Your task to perform on an android device: toggle notification dots Image 0: 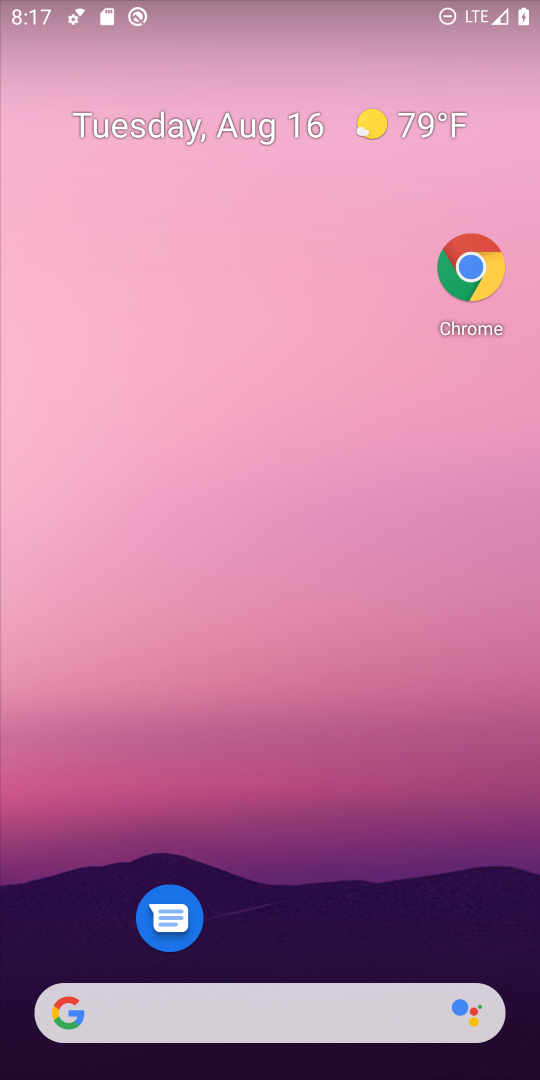
Step 0: drag from (351, 948) to (408, 9)
Your task to perform on an android device: toggle notification dots Image 1: 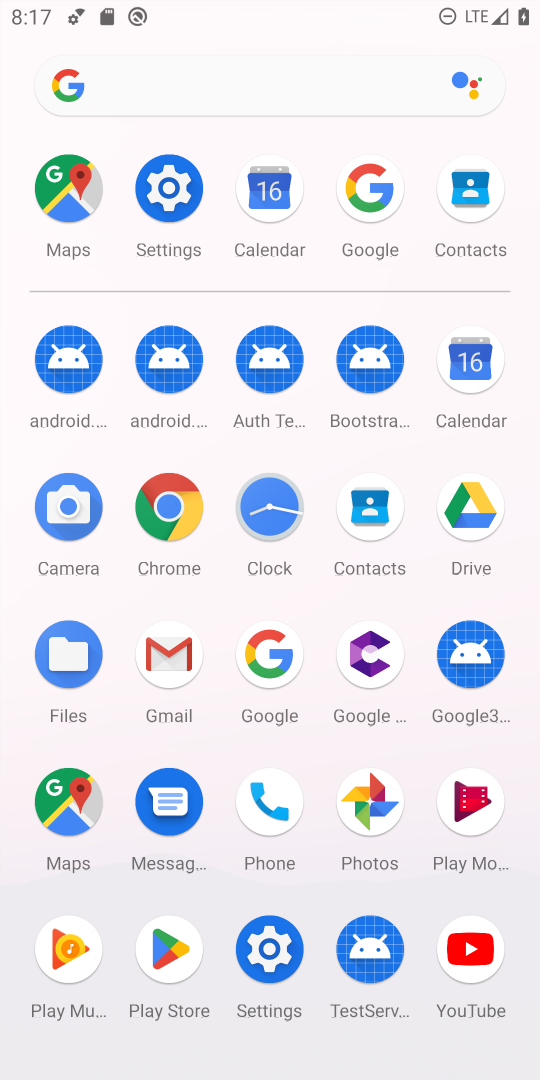
Step 1: click (157, 225)
Your task to perform on an android device: toggle notification dots Image 2: 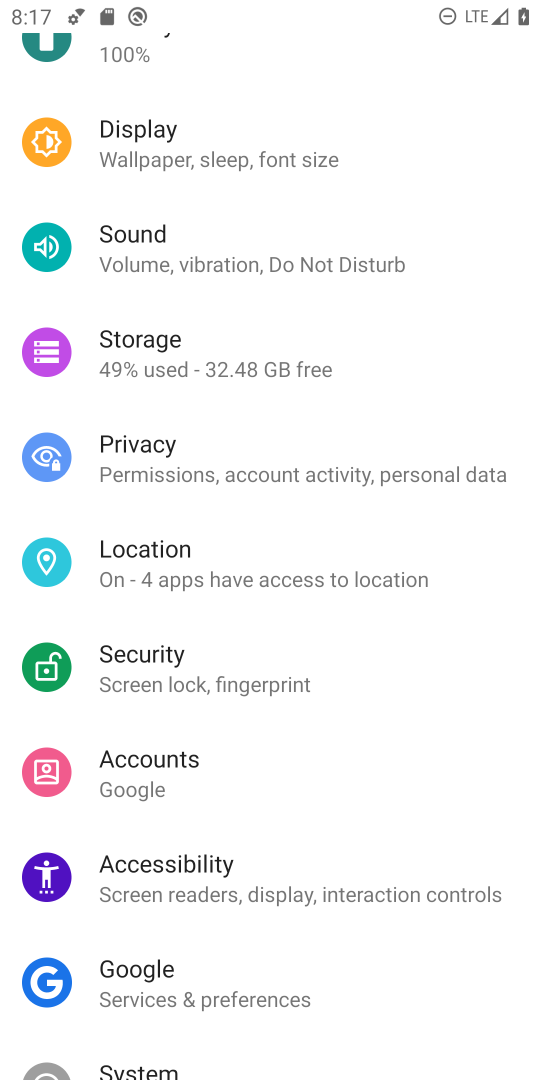
Step 2: drag from (225, 145) to (279, 535)
Your task to perform on an android device: toggle notification dots Image 3: 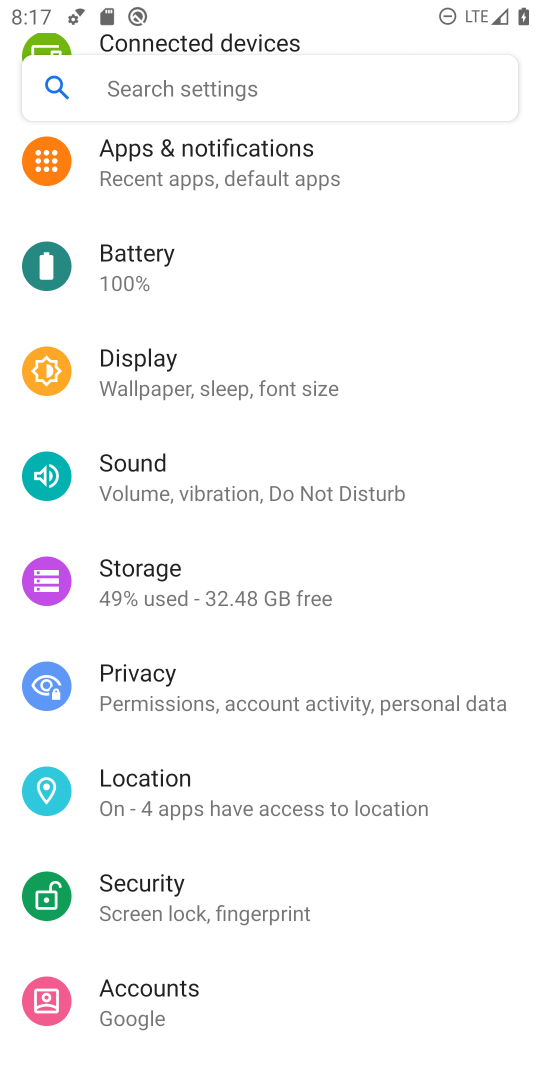
Step 3: click (227, 169)
Your task to perform on an android device: toggle notification dots Image 4: 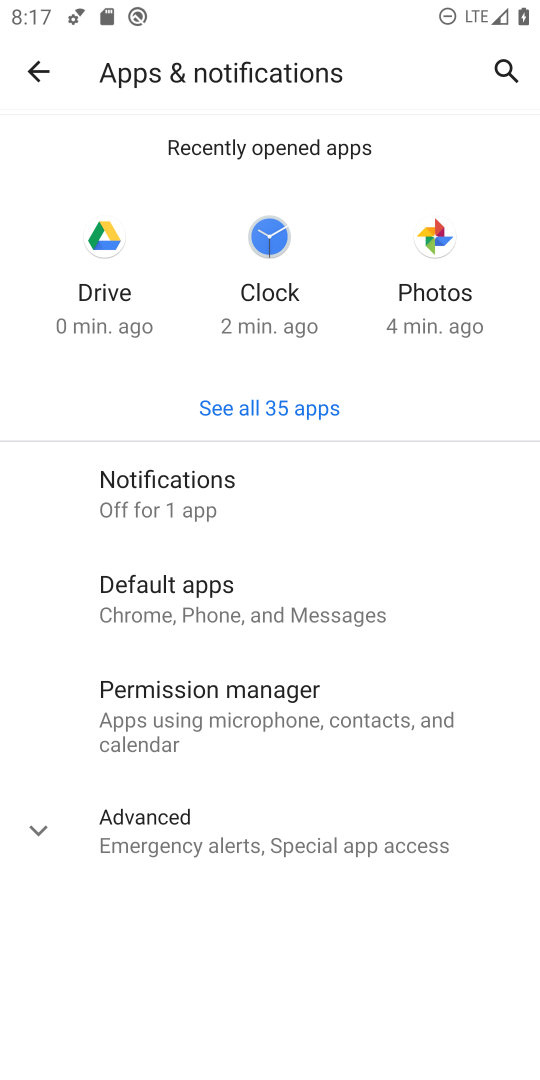
Step 4: click (204, 501)
Your task to perform on an android device: toggle notification dots Image 5: 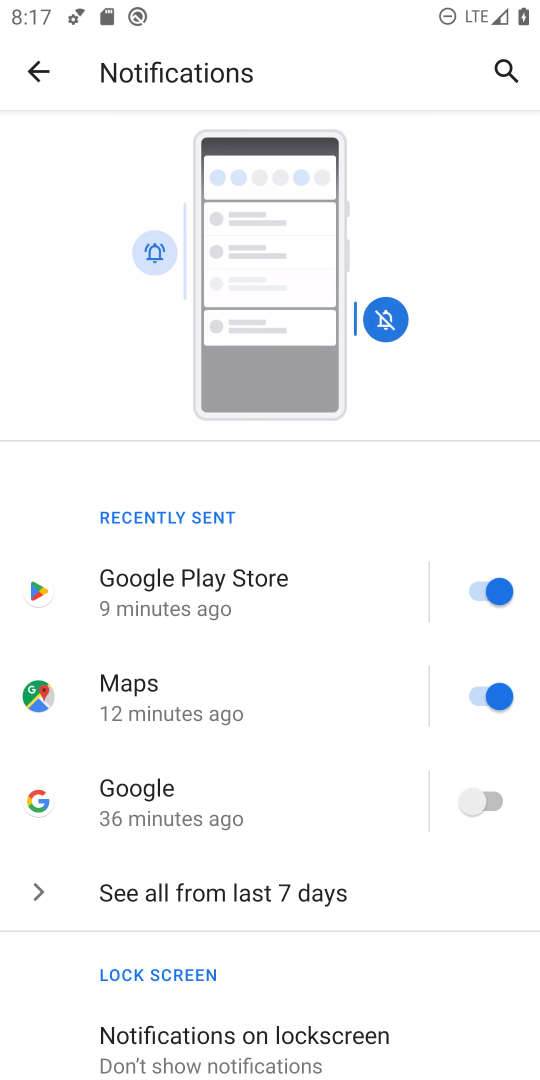
Step 5: drag from (266, 851) to (251, 419)
Your task to perform on an android device: toggle notification dots Image 6: 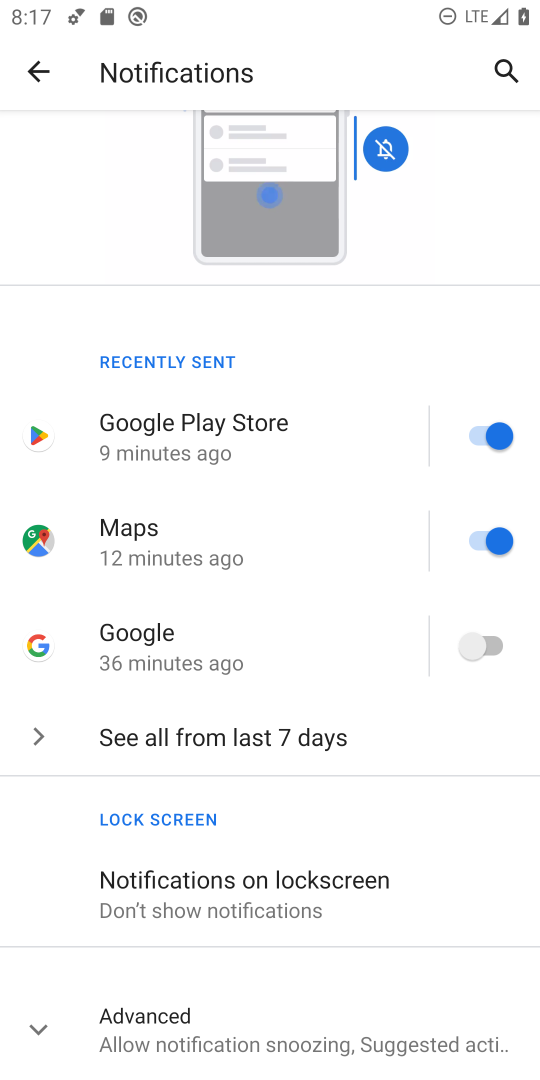
Step 6: click (271, 1032)
Your task to perform on an android device: toggle notification dots Image 7: 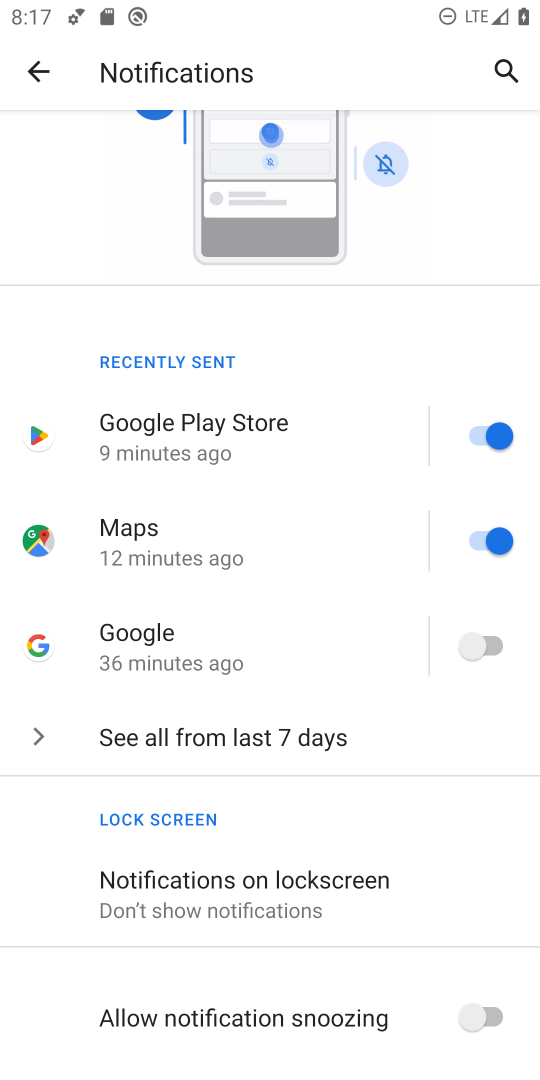
Step 7: drag from (254, 937) to (278, 444)
Your task to perform on an android device: toggle notification dots Image 8: 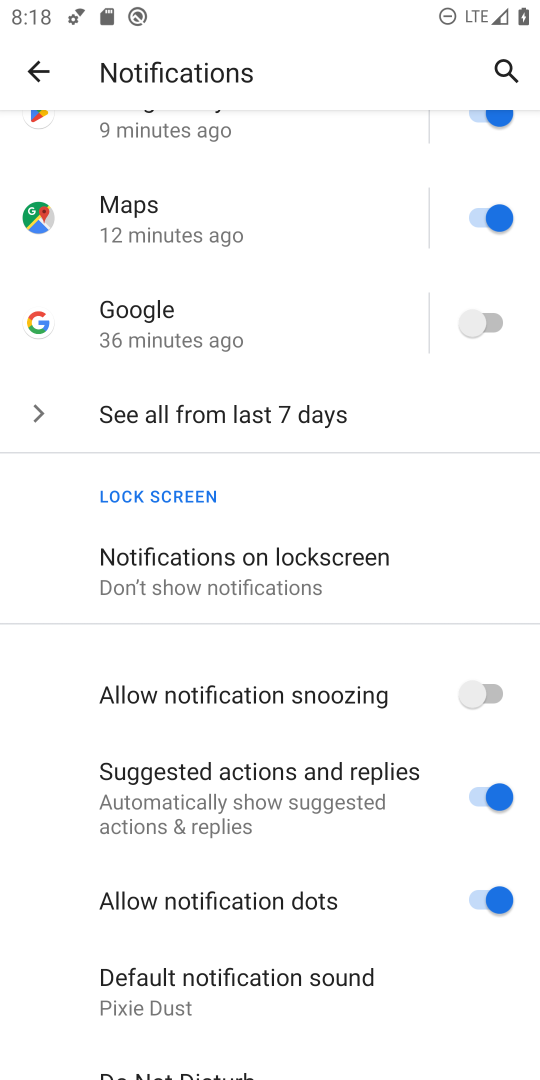
Step 8: click (481, 906)
Your task to perform on an android device: toggle notification dots Image 9: 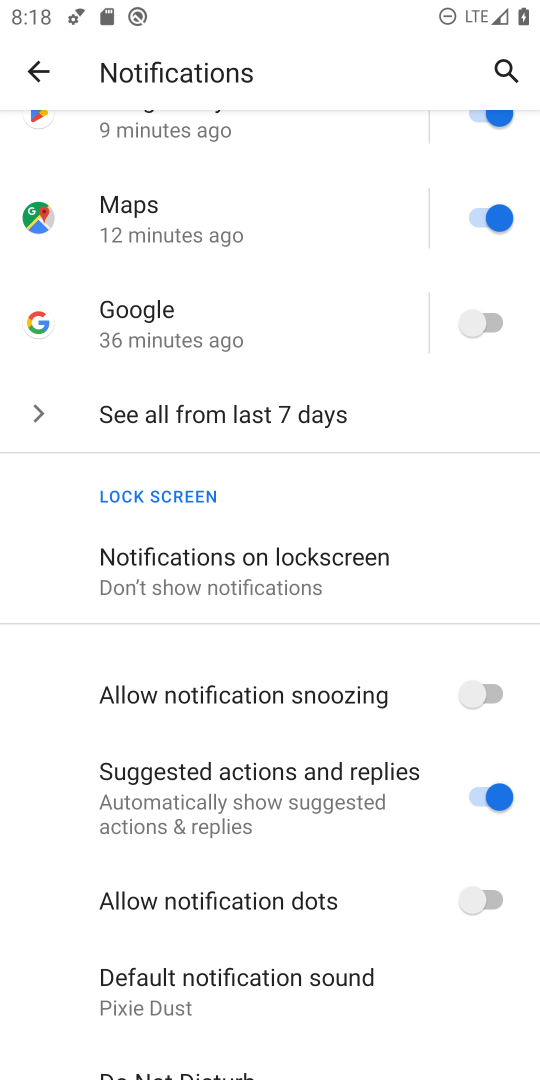
Step 9: task complete